Your task to perform on an android device: Check the weather Image 0: 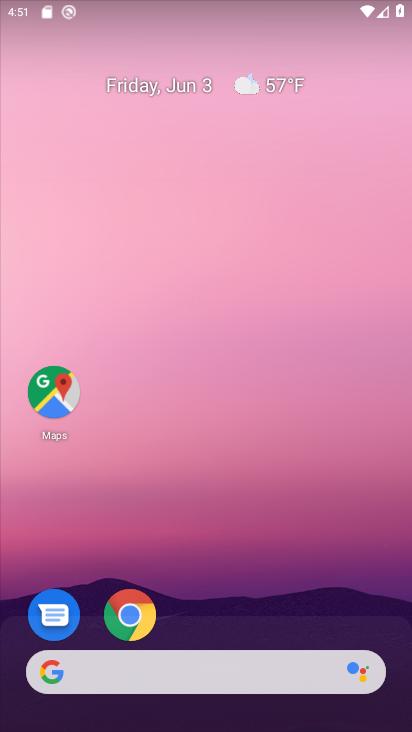
Step 0: click (274, 92)
Your task to perform on an android device: Check the weather Image 1: 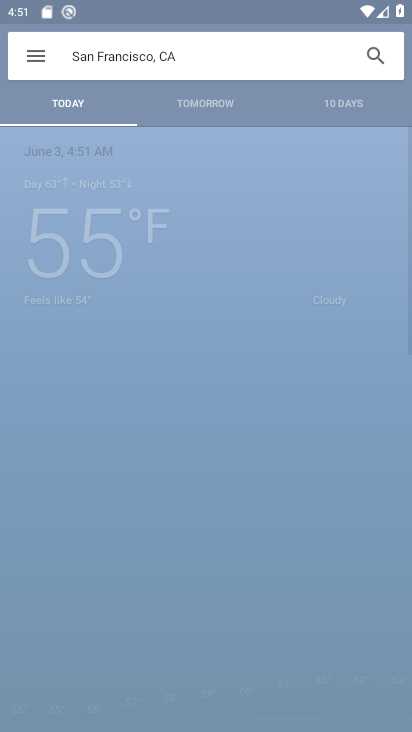
Step 1: task complete